Your task to perform on an android device: Open settings on Google Maps Image 0: 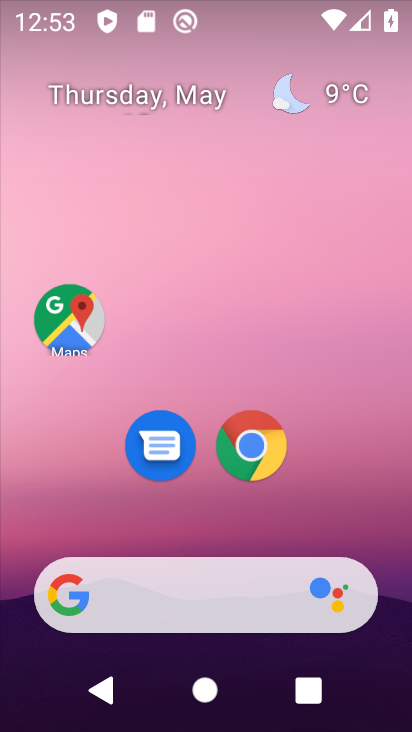
Step 0: drag from (314, 497) to (315, 27)
Your task to perform on an android device: Open settings on Google Maps Image 1: 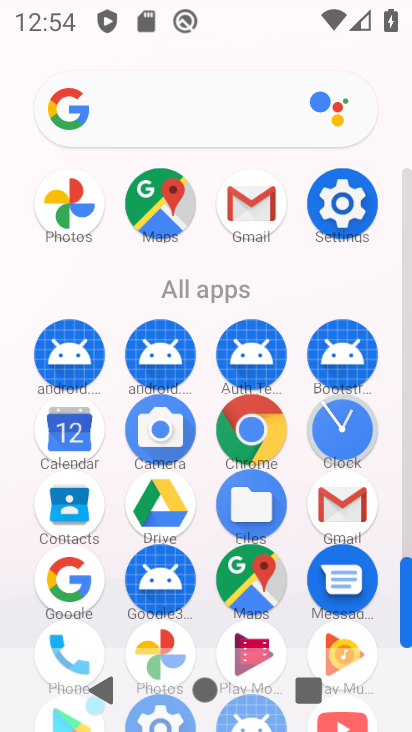
Step 1: click (239, 574)
Your task to perform on an android device: Open settings on Google Maps Image 2: 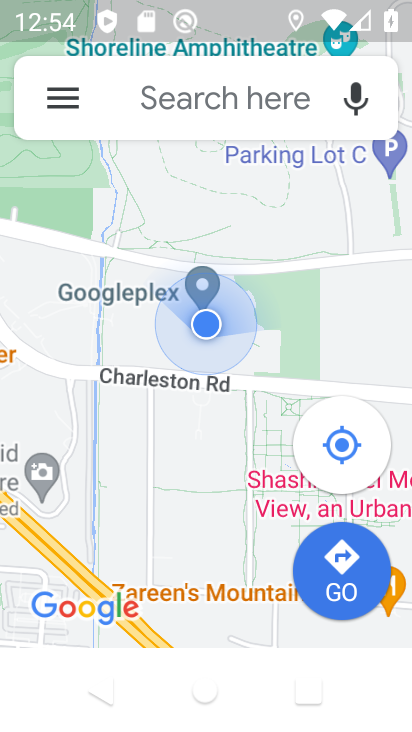
Step 2: click (64, 85)
Your task to perform on an android device: Open settings on Google Maps Image 3: 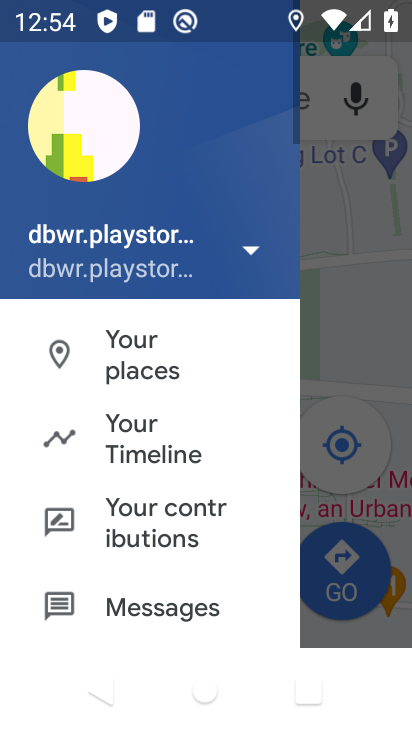
Step 3: drag from (184, 557) to (197, 135)
Your task to perform on an android device: Open settings on Google Maps Image 4: 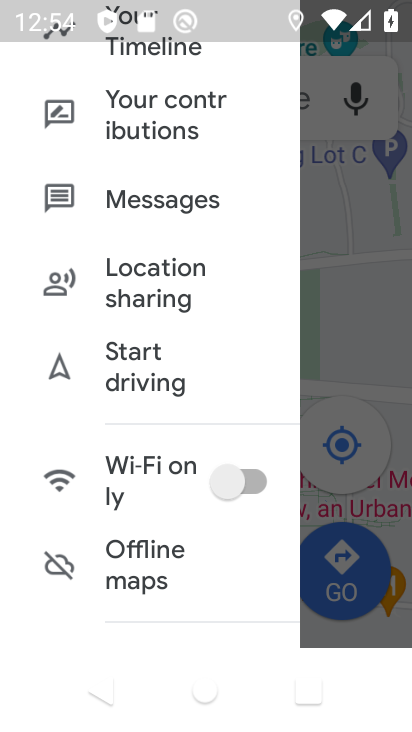
Step 4: drag from (164, 562) to (170, 271)
Your task to perform on an android device: Open settings on Google Maps Image 5: 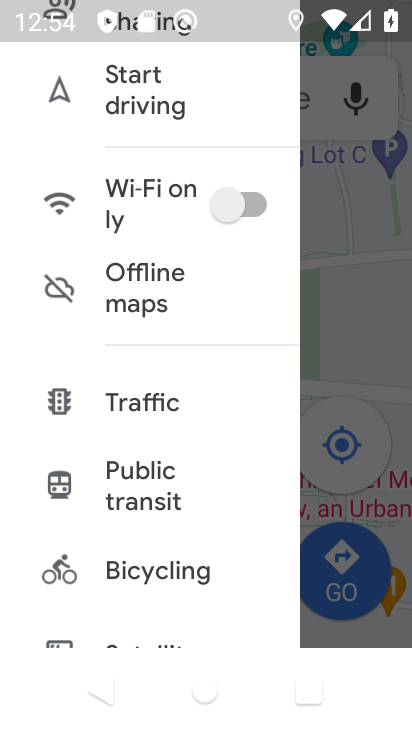
Step 5: drag from (154, 580) to (156, 148)
Your task to perform on an android device: Open settings on Google Maps Image 6: 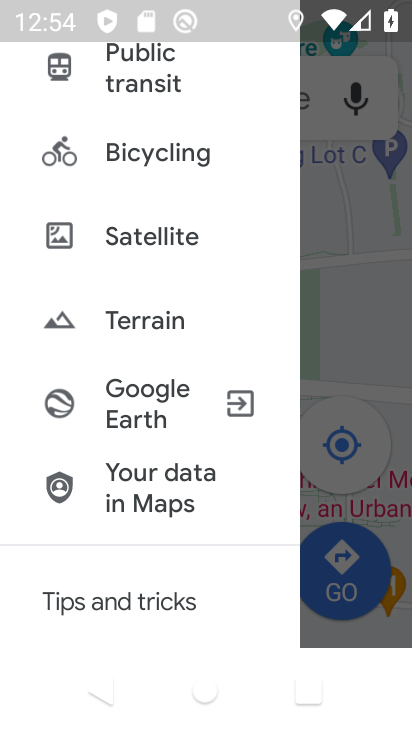
Step 6: drag from (153, 527) to (154, 225)
Your task to perform on an android device: Open settings on Google Maps Image 7: 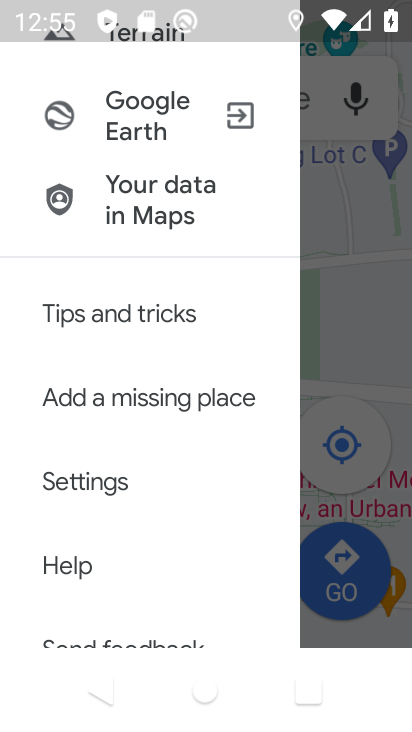
Step 7: click (101, 478)
Your task to perform on an android device: Open settings on Google Maps Image 8: 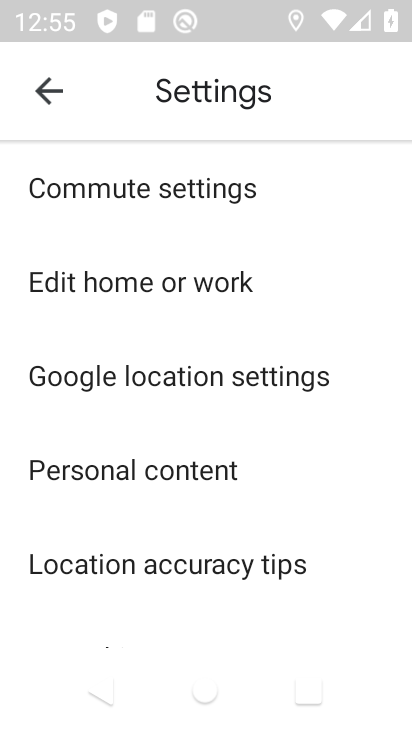
Step 8: task complete